Your task to perform on an android device: set default search engine in the chrome app Image 0: 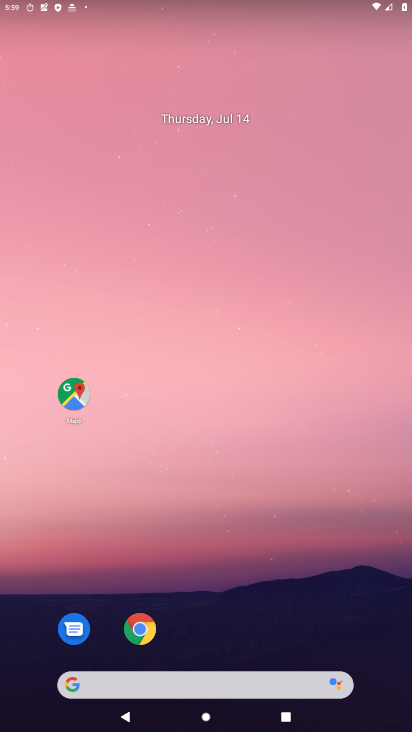
Step 0: drag from (294, 52) to (268, 9)
Your task to perform on an android device: set default search engine in the chrome app Image 1: 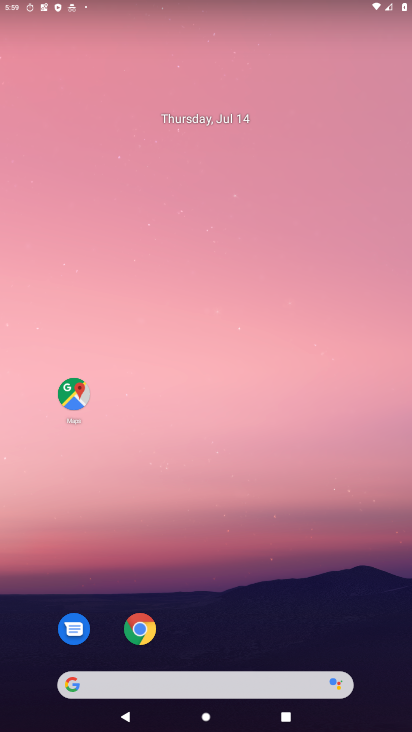
Step 1: drag from (154, 567) to (232, 62)
Your task to perform on an android device: set default search engine in the chrome app Image 2: 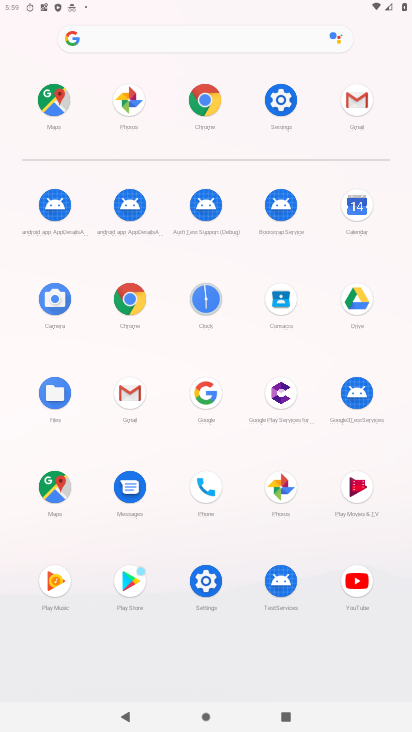
Step 2: click (132, 286)
Your task to perform on an android device: set default search engine in the chrome app Image 3: 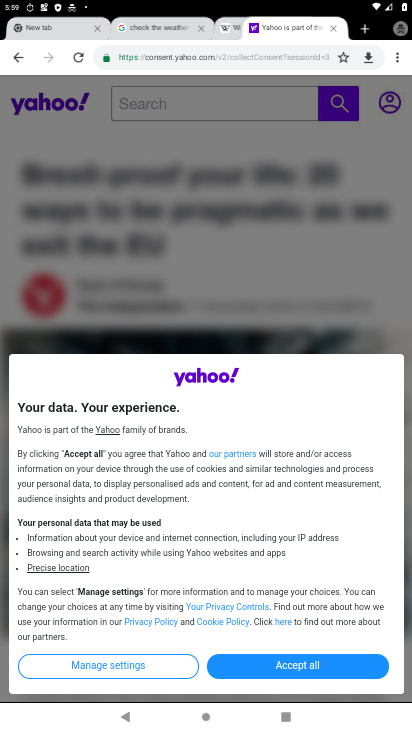
Step 3: drag from (398, 52) to (284, 387)
Your task to perform on an android device: set default search engine in the chrome app Image 4: 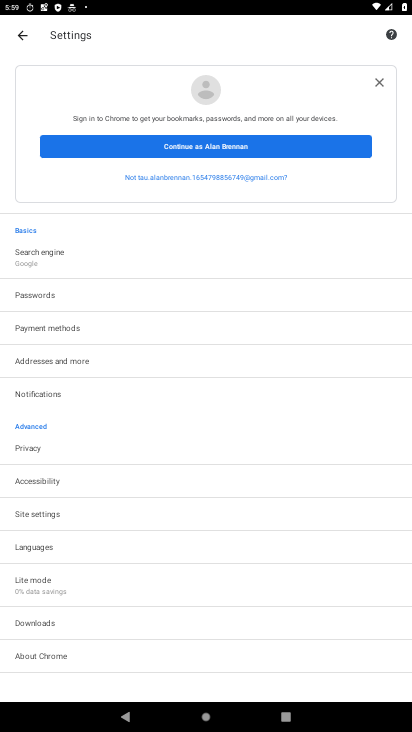
Step 4: drag from (88, 577) to (161, 228)
Your task to perform on an android device: set default search engine in the chrome app Image 5: 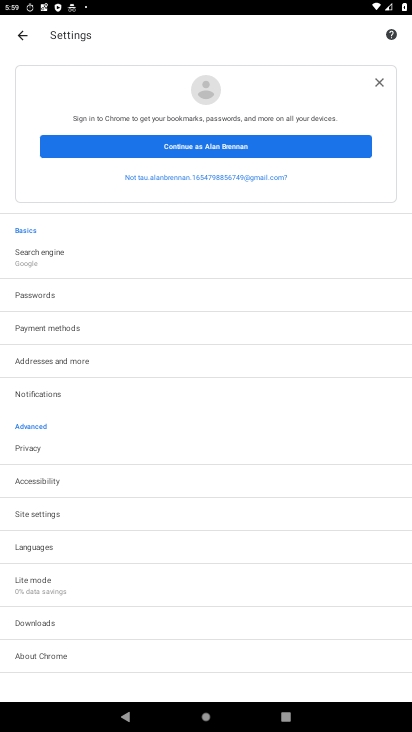
Step 5: click (59, 521)
Your task to perform on an android device: set default search engine in the chrome app Image 6: 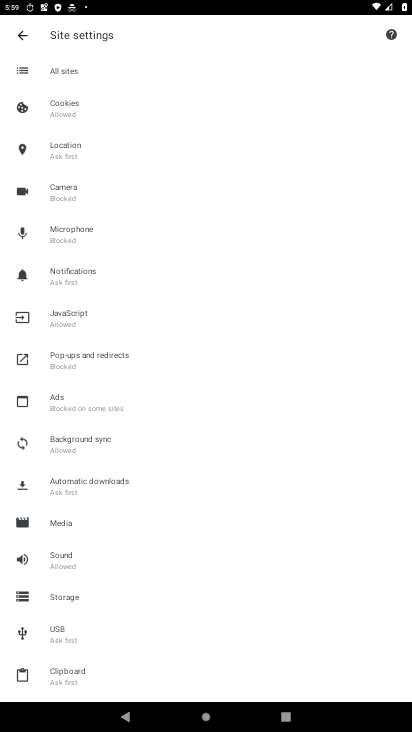
Step 6: press back button
Your task to perform on an android device: set default search engine in the chrome app Image 7: 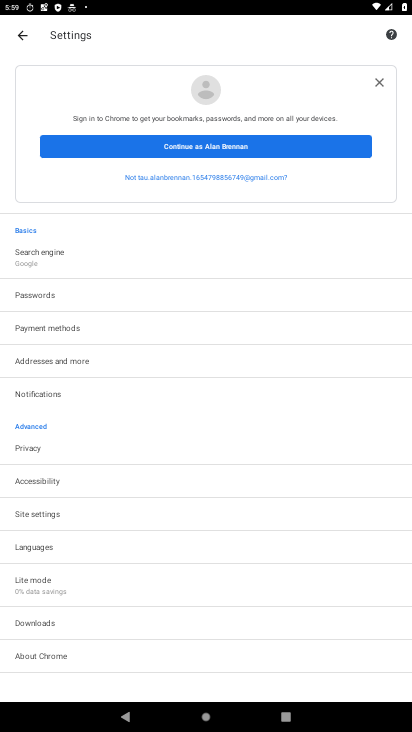
Step 7: click (62, 257)
Your task to perform on an android device: set default search engine in the chrome app Image 8: 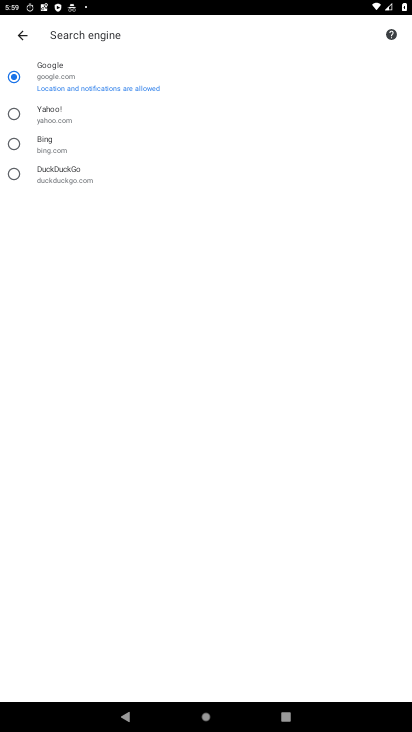
Step 8: task complete